Your task to perform on an android device: change the clock style Image 0: 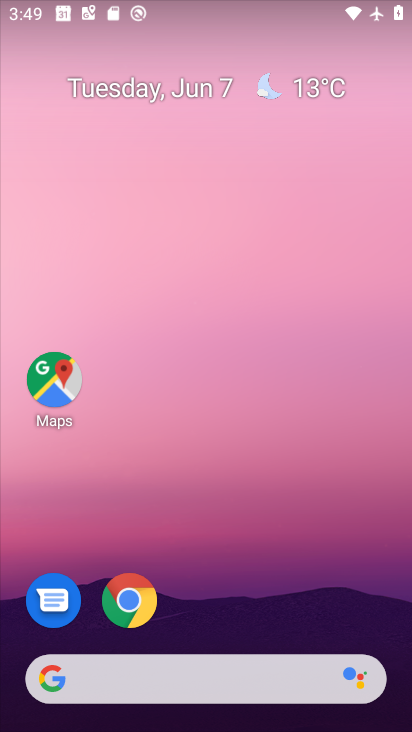
Step 0: drag from (241, 578) to (255, 170)
Your task to perform on an android device: change the clock style Image 1: 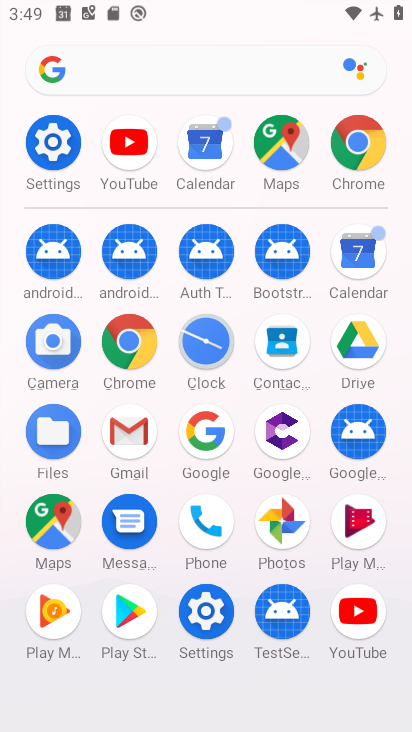
Step 1: click (214, 347)
Your task to perform on an android device: change the clock style Image 2: 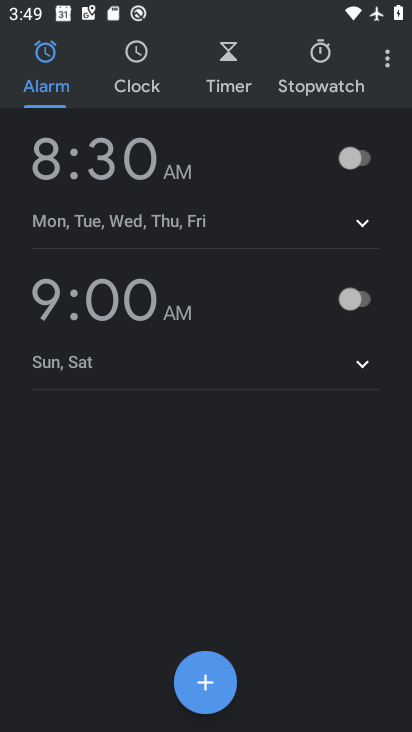
Step 2: click (397, 60)
Your task to perform on an android device: change the clock style Image 3: 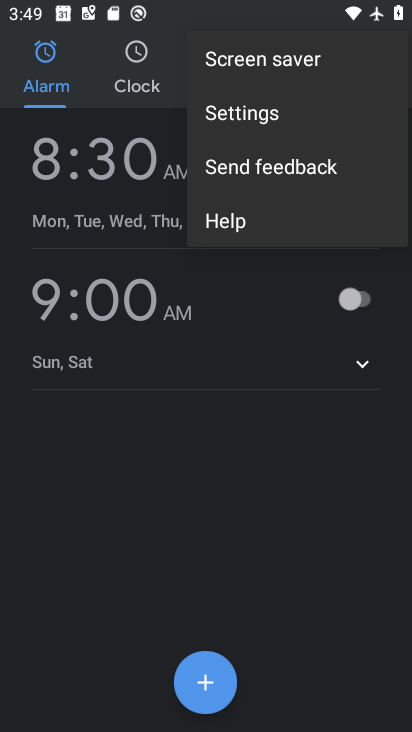
Step 3: click (292, 122)
Your task to perform on an android device: change the clock style Image 4: 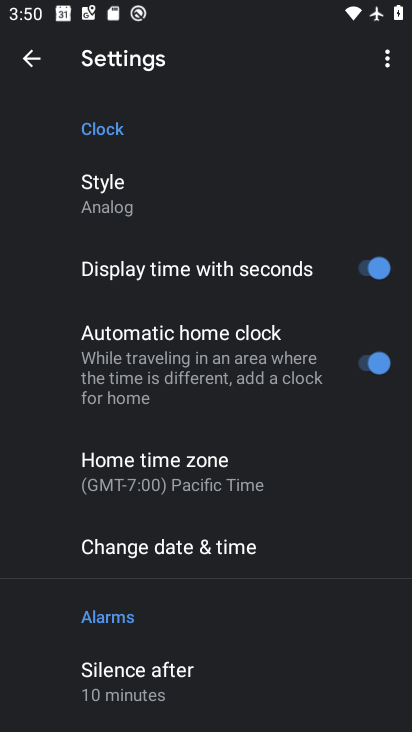
Step 4: click (119, 202)
Your task to perform on an android device: change the clock style Image 5: 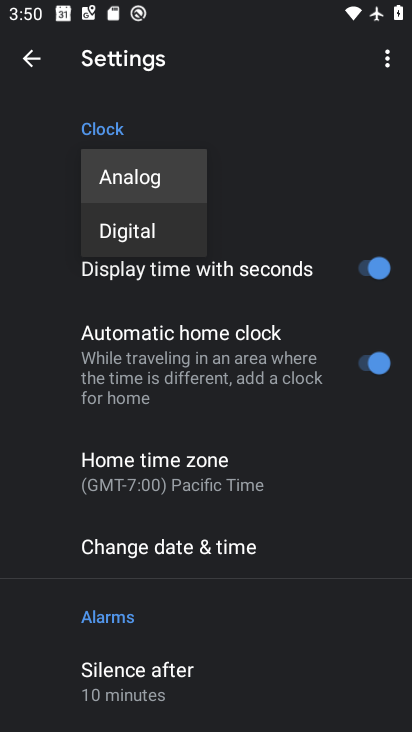
Step 5: click (130, 236)
Your task to perform on an android device: change the clock style Image 6: 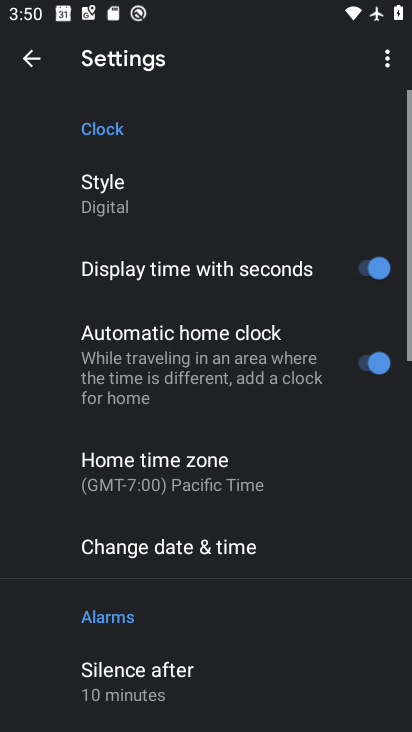
Step 6: task complete